Your task to perform on an android device: Empty the shopping cart on target.com. Add "lg ultragear" to the cart on target.com Image 0: 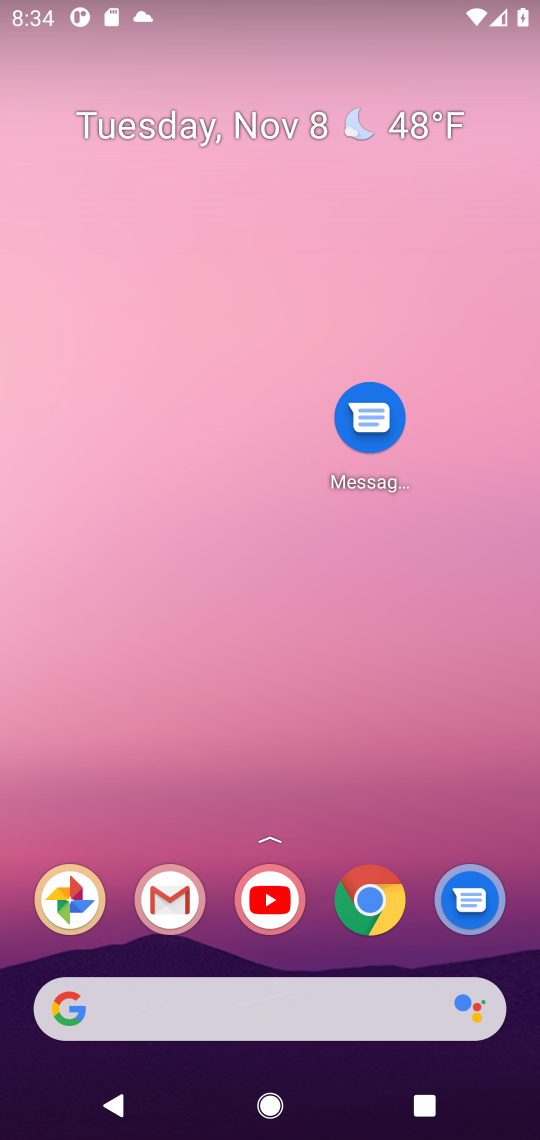
Step 0: drag from (300, 932) to (438, 172)
Your task to perform on an android device: Empty the shopping cart on target.com. Add "lg ultragear" to the cart on target.com Image 1: 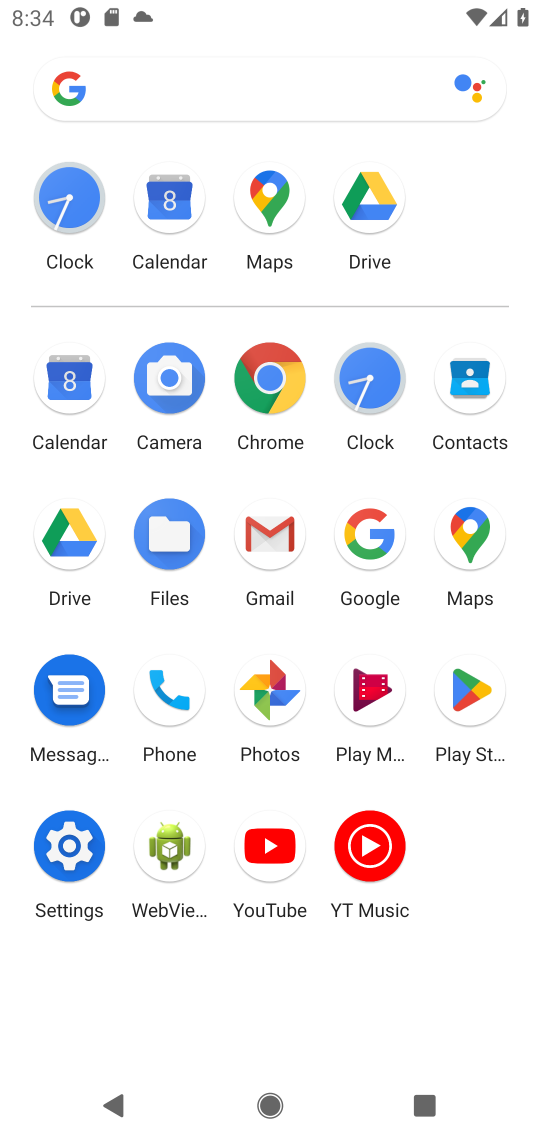
Step 1: click (378, 518)
Your task to perform on an android device: Empty the shopping cart on target.com. Add "lg ultragear" to the cart on target.com Image 2: 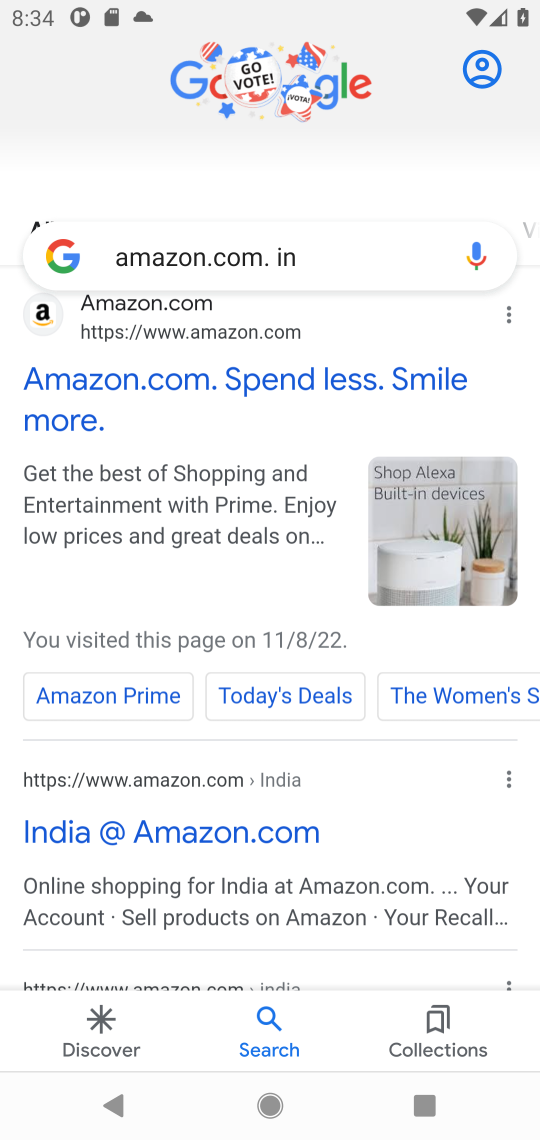
Step 2: click (259, 254)
Your task to perform on an android device: Empty the shopping cart on target.com. Add "lg ultragear" to the cart on target.com Image 3: 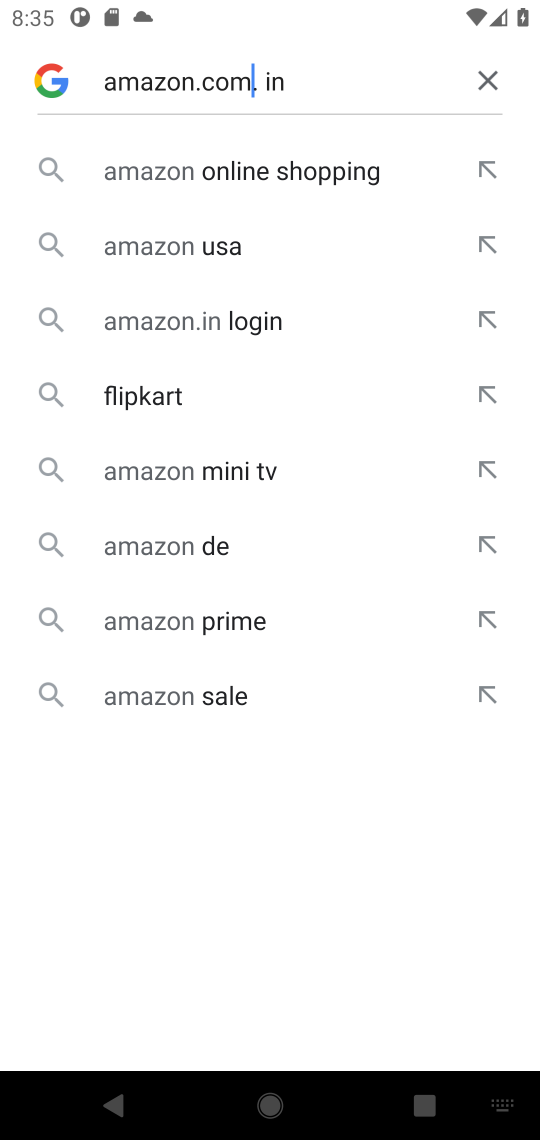
Step 3: click (493, 85)
Your task to perform on an android device: Empty the shopping cart on target.com. Add "lg ultragear" to the cart on target.com Image 4: 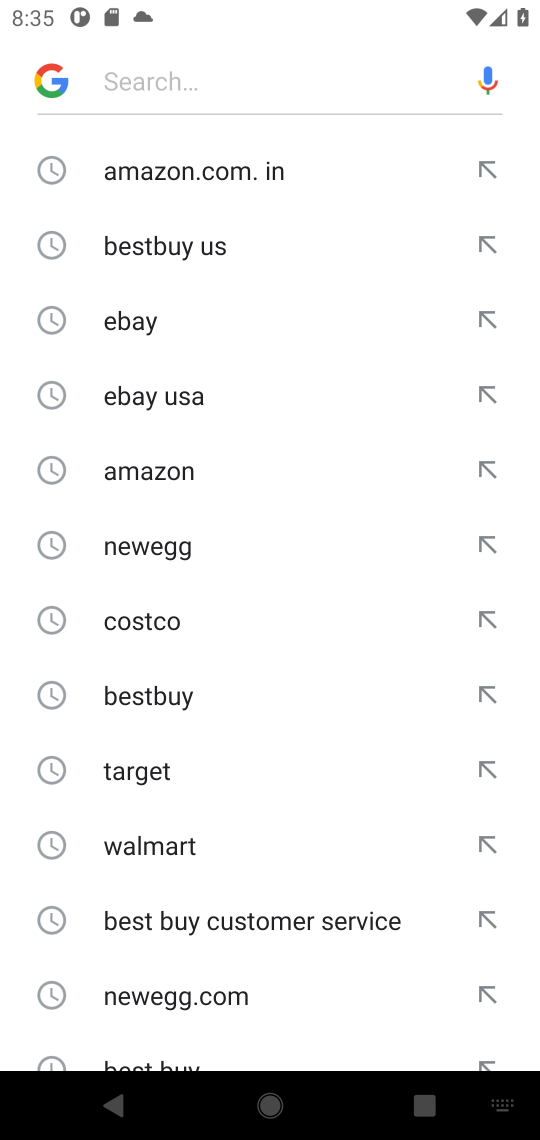
Step 4: click (132, 766)
Your task to perform on an android device: Empty the shopping cart on target.com. Add "lg ultragear" to the cart on target.com Image 5: 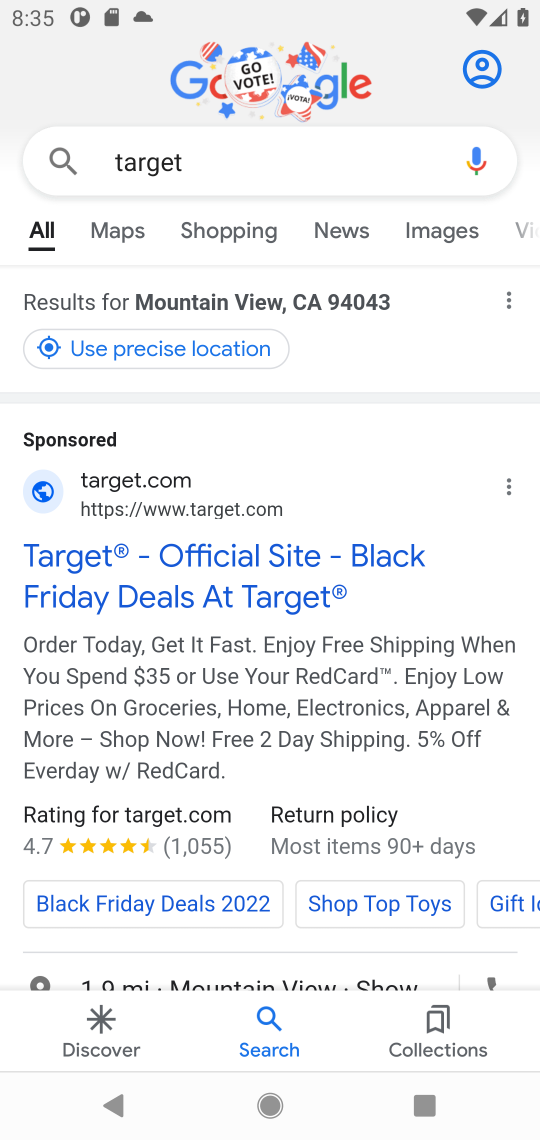
Step 5: drag from (99, 804) to (226, 278)
Your task to perform on an android device: Empty the shopping cart on target.com. Add "lg ultragear" to the cart on target.com Image 6: 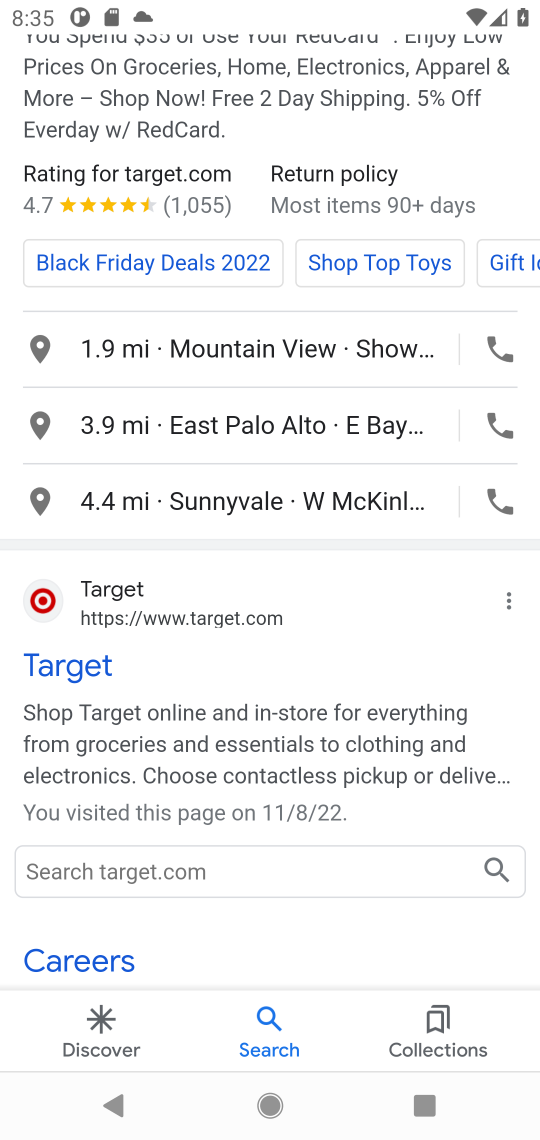
Step 6: click (47, 591)
Your task to perform on an android device: Empty the shopping cart on target.com. Add "lg ultragear" to the cart on target.com Image 7: 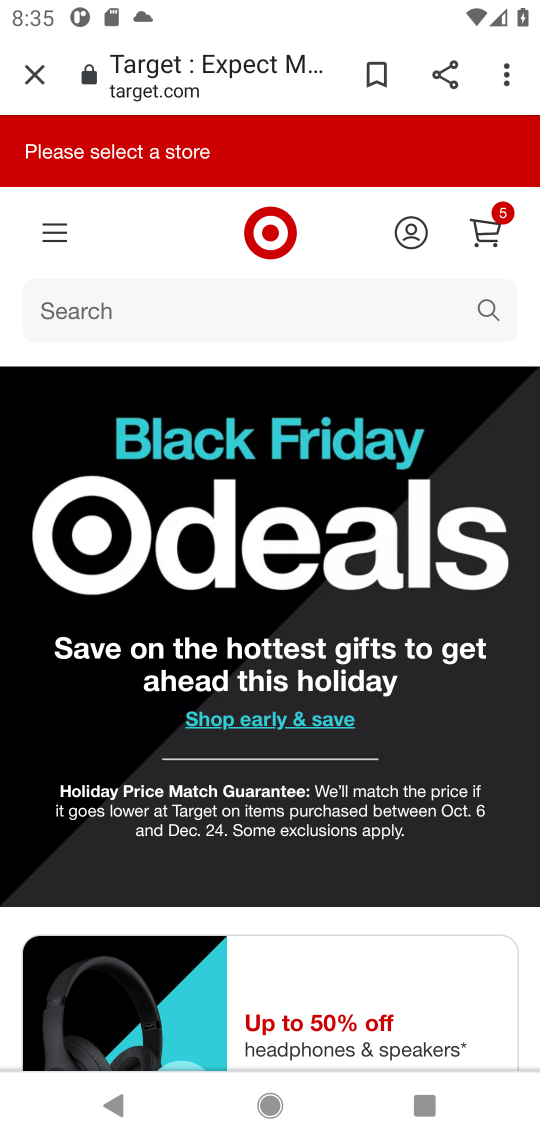
Step 7: click (204, 302)
Your task to perform on an android device: Empty the shopping cart on target.com. Add "lg ultragear" to the cart on target.com Image 8: 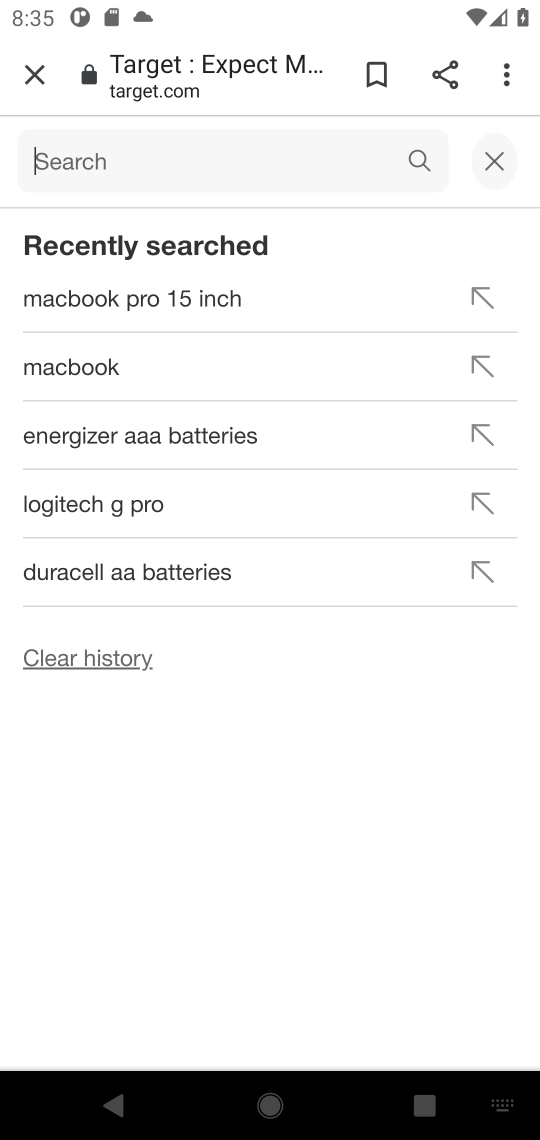
Step 8: click (154, 162)
Your task to perform on an android device: Empty the shopping cart on target.com. Add "lg ultragear" to the cart on target.com Image 9: 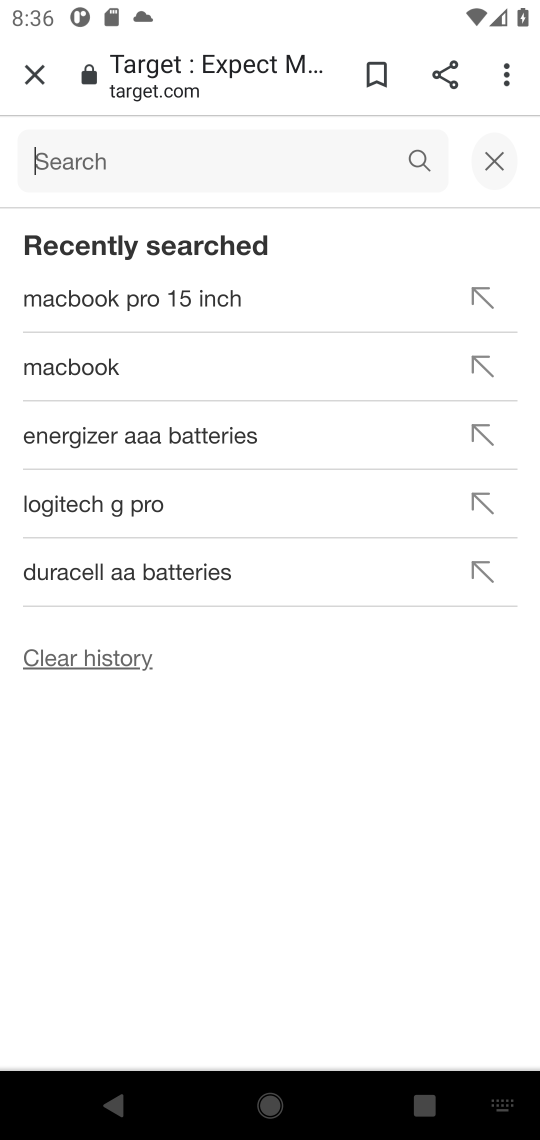
Step 9: type "lg ultragear "
Your task to perform on an android device: Empty the shopping cart on target.com. Add "lg ultragear" to the cart on target.com Image 10: 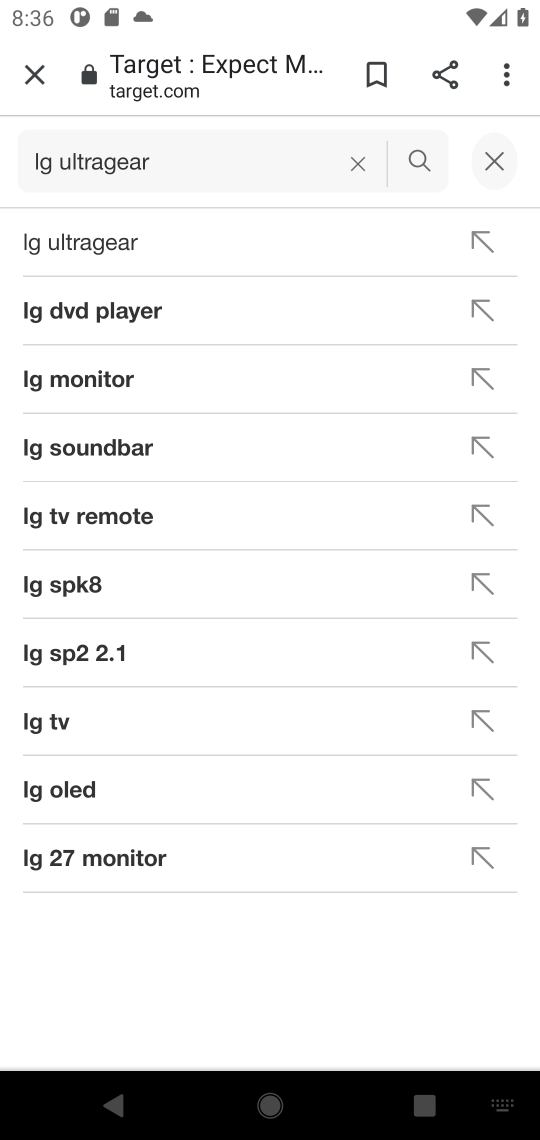
Step 10: click (122, 245)
Your task to perform on an android device: Empty the shopping cart on target.com. Add "lg ultragear" to the cart on target.com Image 11: 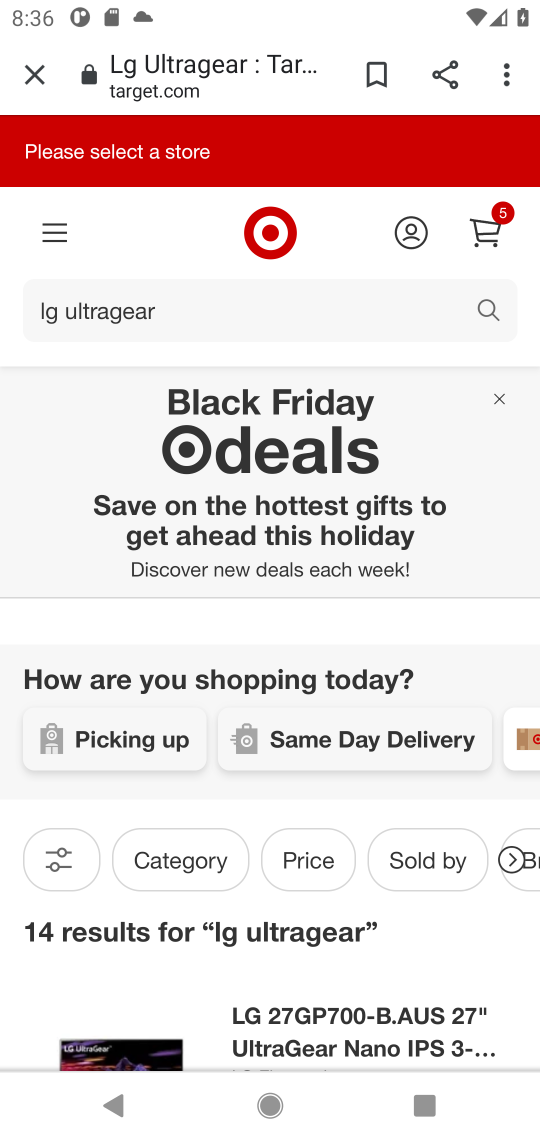
Step 11: click (496, 298)
Your task to perform on an android device: Empty the shopping cart on target.com. Add "lg ultragear" to the cart on target.com Image 12: 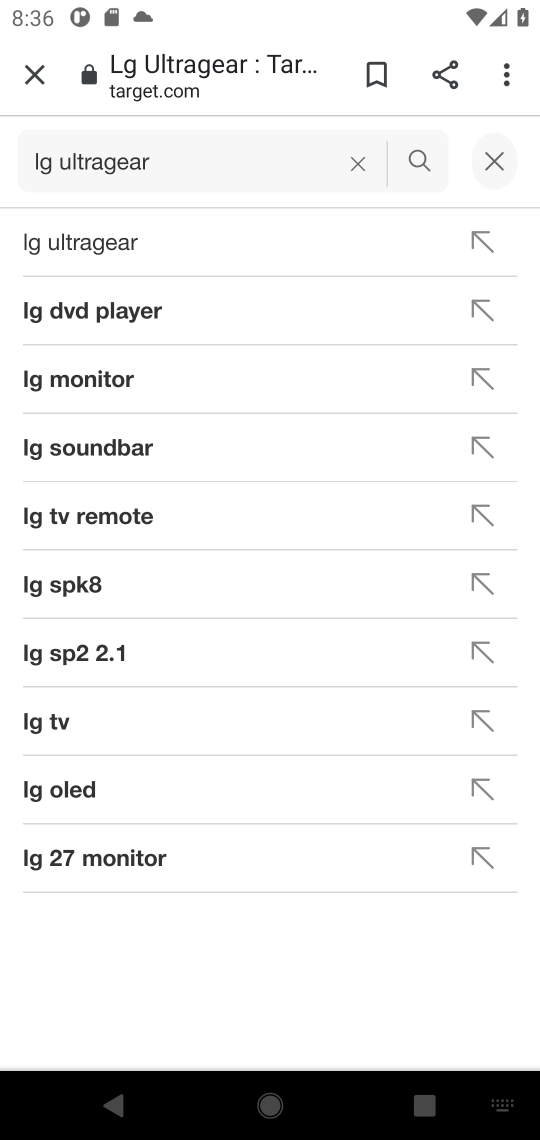
Step 12: click (141, 235)
Your task to perform on an android device: Empty the shopping cart on target.com. Add "lg ultragear" to the cart on target.com Image 13: 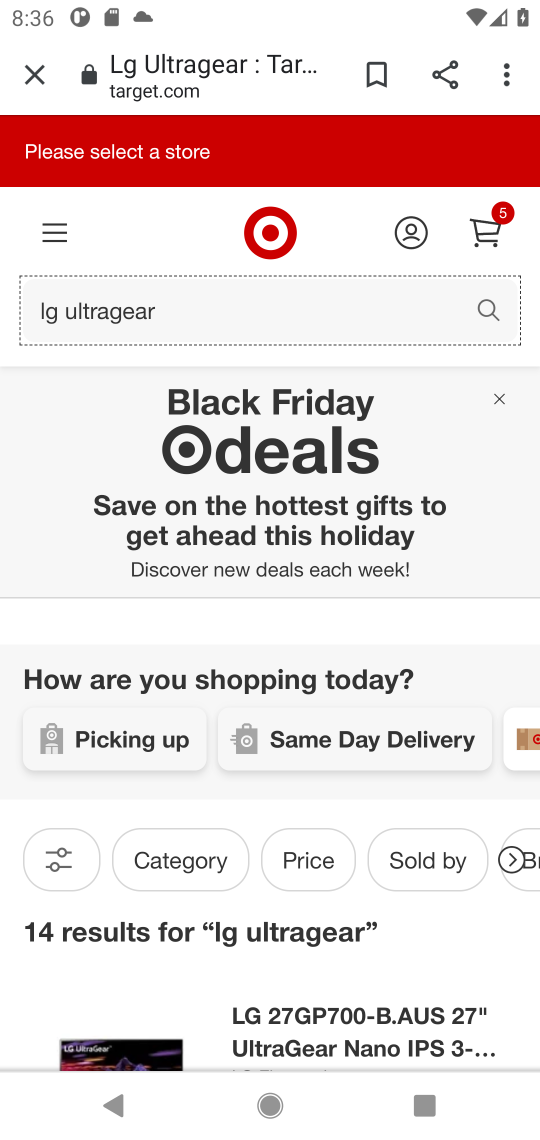
Step 13: drag from (321, 1069) to (330, 498)
Your task to perform on an android device: Empty the shopping cart on target.com. Add "lg ultragear" to the cart on target.com Image 14: 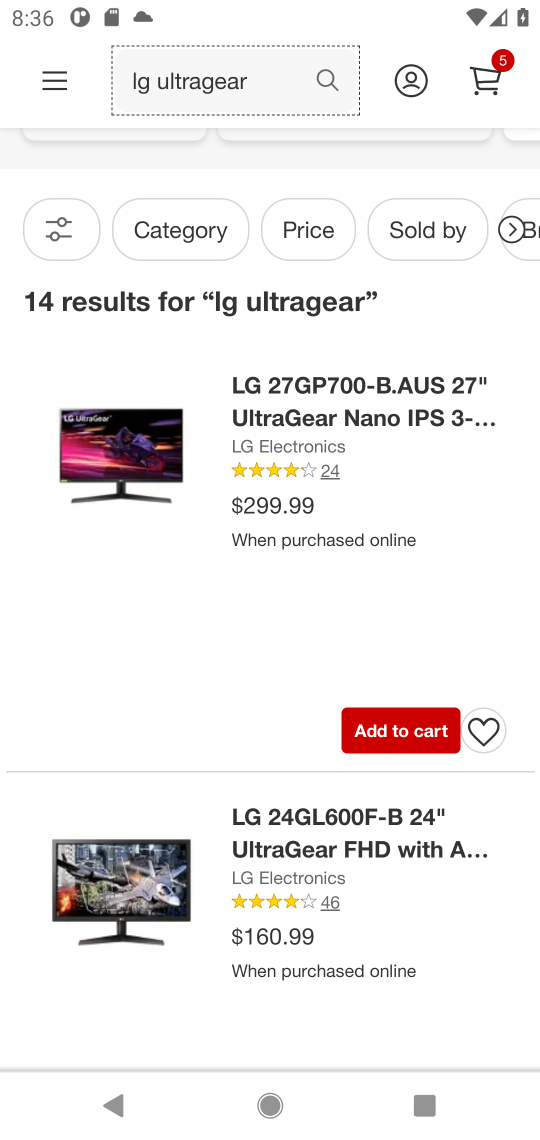
Step 14: click (374, 724)
Your task to perform on an android device: Empty the shopping cart on target.com. Add "lg ultragear" to the cart on target.com Image 15: 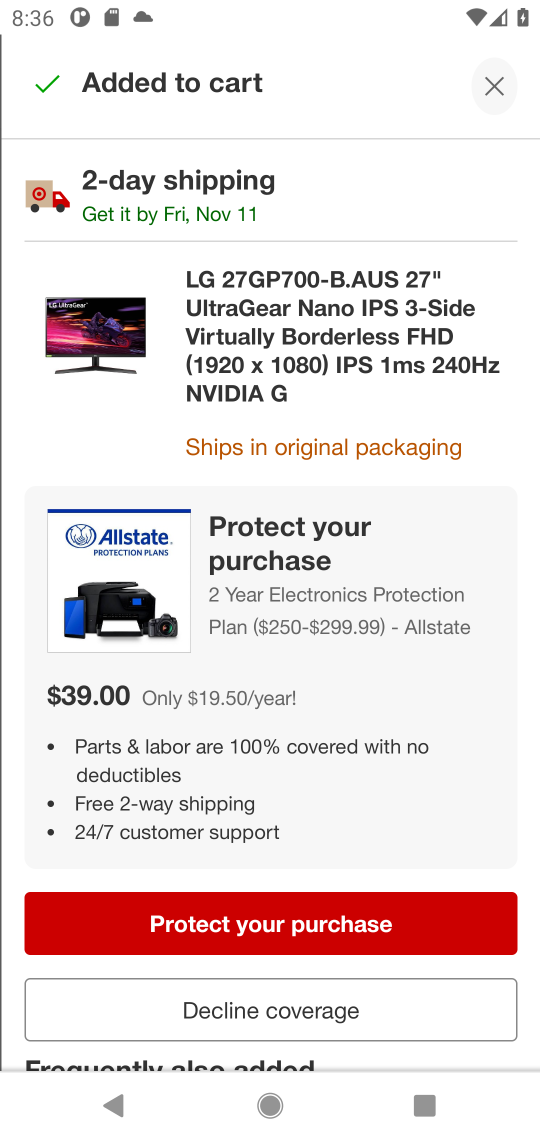
Step 15: click (261, 331)
Your task to perform on an android device: Empty the shopping cart on target.com. Add "lg ultragear" to the cart on target.com Image 16: 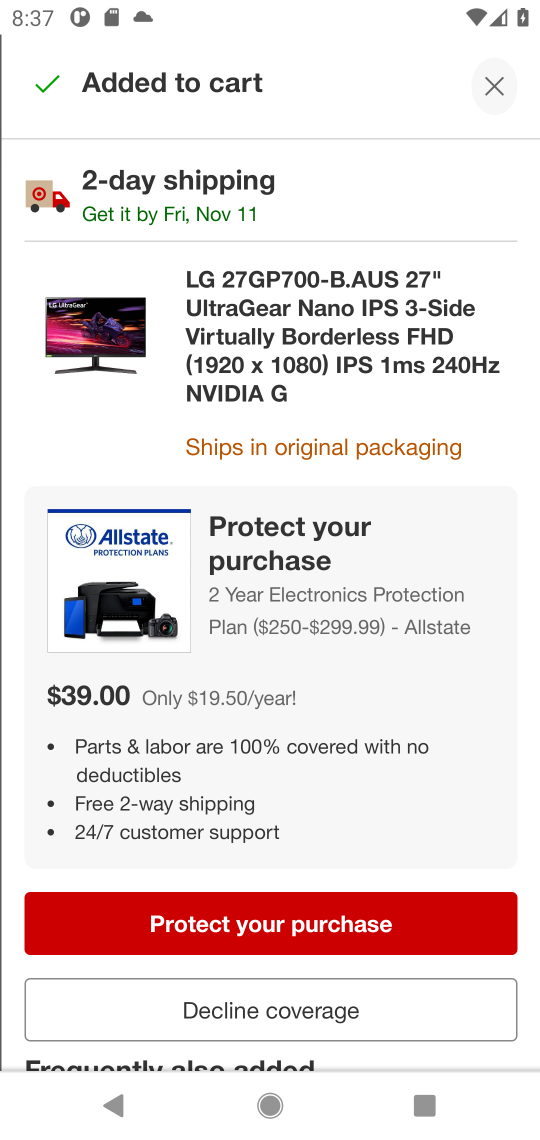
Step 16: click (334, 335)
Your task to perform on an android device: Empty the shopping cart on target.com. Add "lg ultragear" to the cart on target.com Image 17: 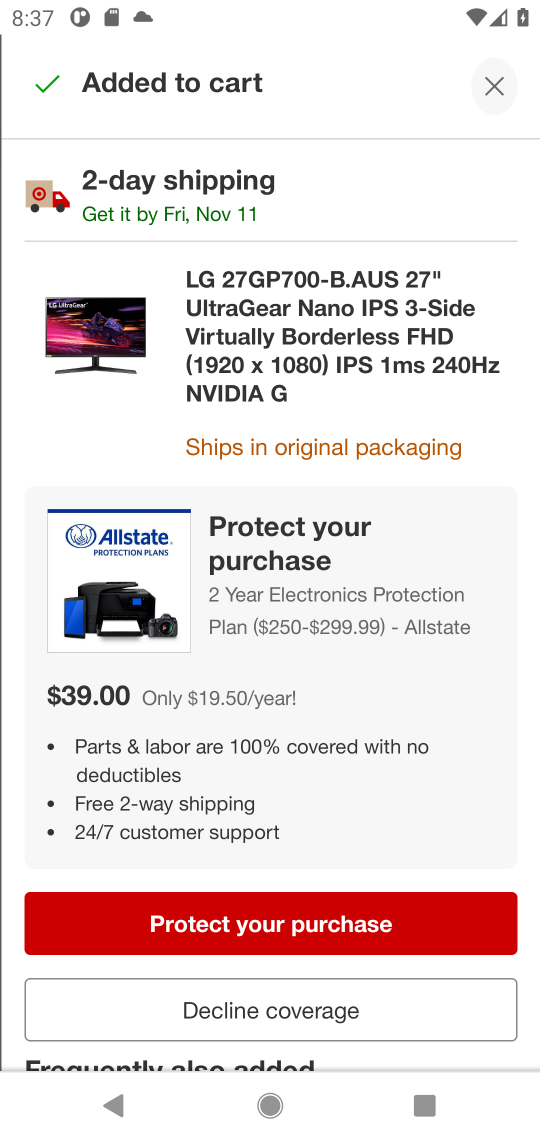
Step 17: task complete